Your task to perform on an android device: Open the web browser Image 0: 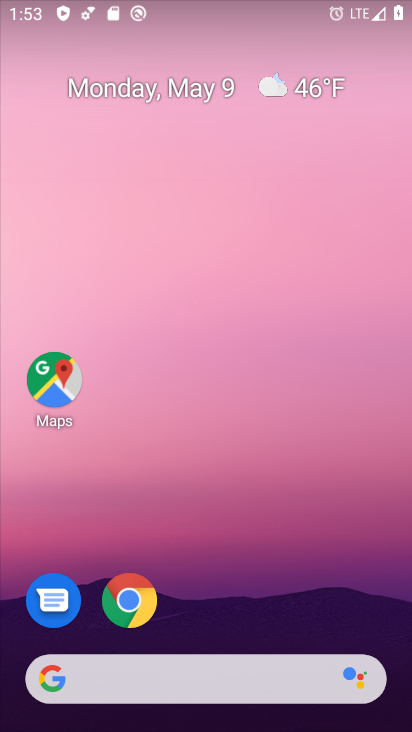
Step 0: click (147, 603)
Your task to perform on an android device: Open the web browser Image 1: 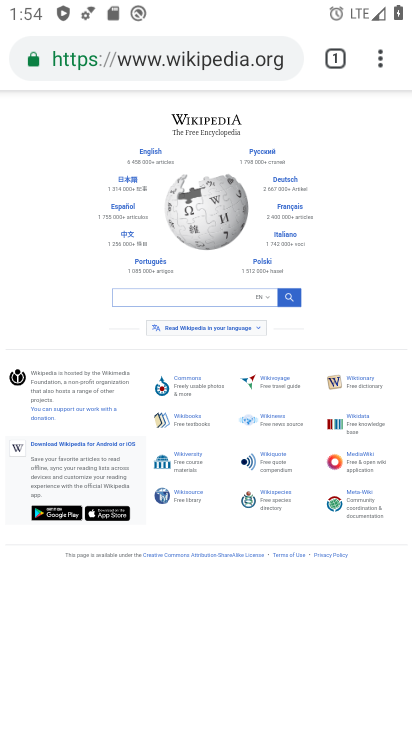
Step 1: click (146, 604)
Your task to perform on an android device: Open the web browser Image 2: 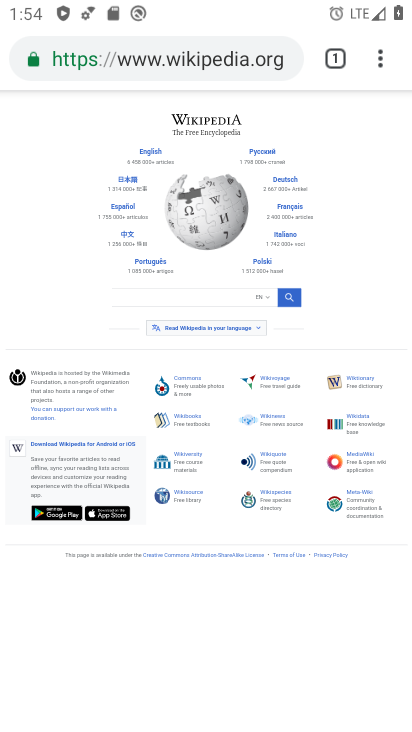
Step 2: task complete